Your task to perform on an android device: open wifi settings Image 0: 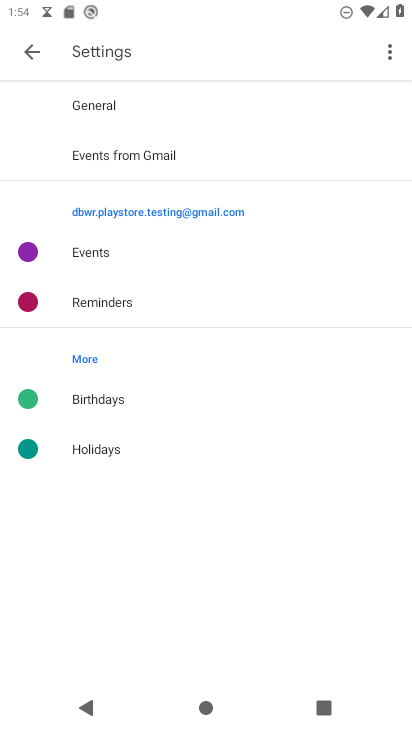
Step 0: press home button
Your task to perform on an android device: open wifi settings Image 1: 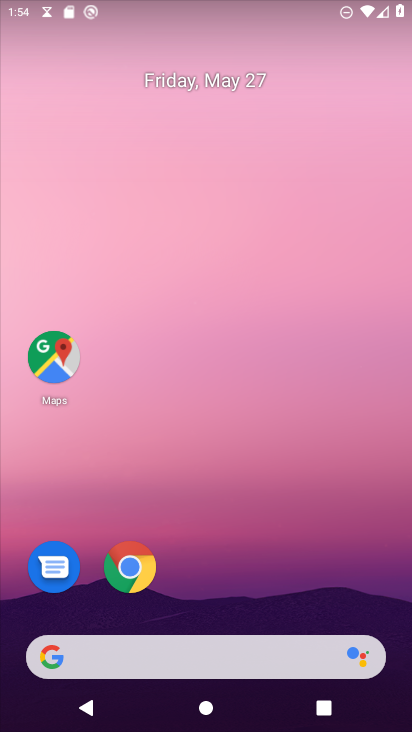
Step 1: drag from (249, 601) to (182, 149)
Your task to perform on an android device: open wifi settings Image 2: 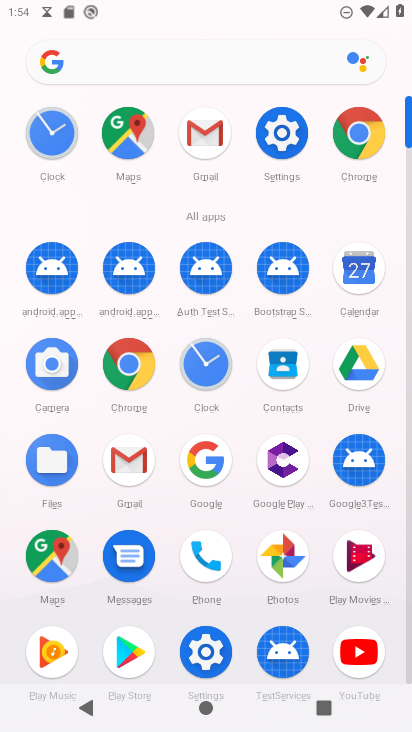
Step 2: click (274, 129)
Your task to perform on an android device: open wifi settings Image 3: 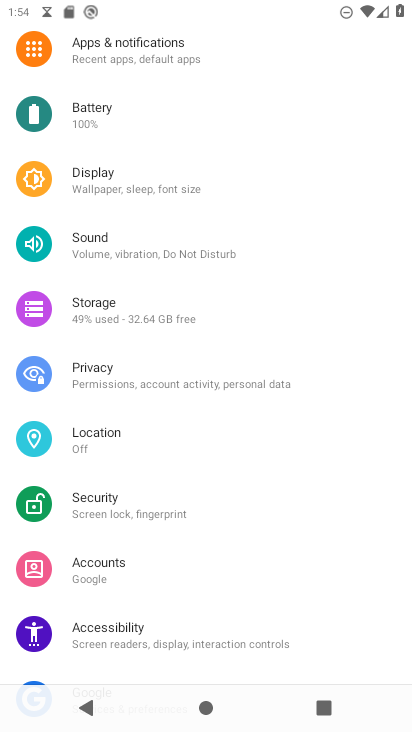
Step 3: drag from (166, 90) to (187, 570)
Your task to perform on an android device: open wifi settings Image 4: 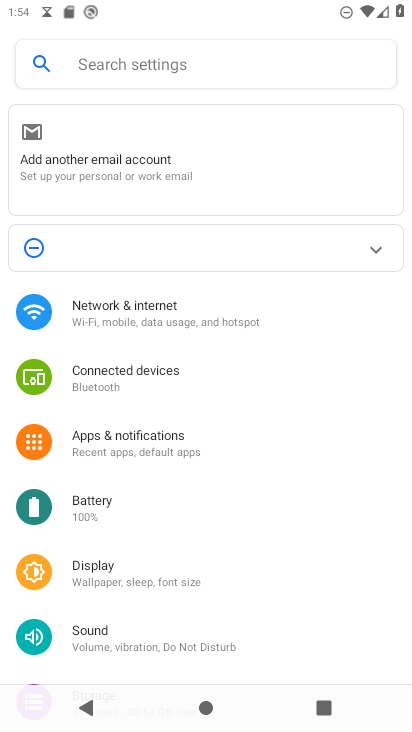
Step 4: click (134, 323)
Your task to perform on an android device: open wifi settings Image 5: 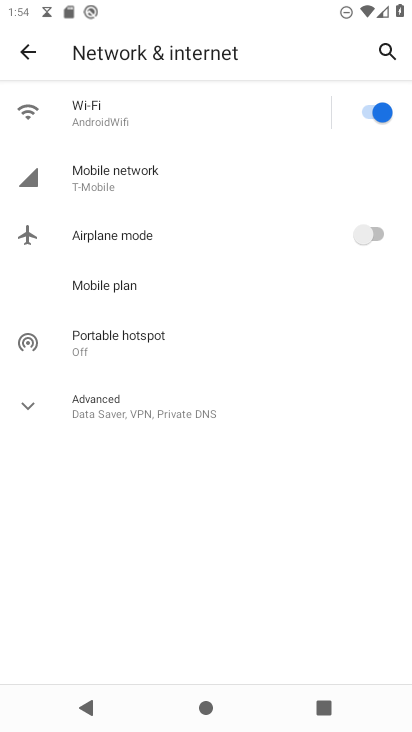
Step 5: click (166, 117)
Your task to perform on an android device: open wifi settings Image 6: 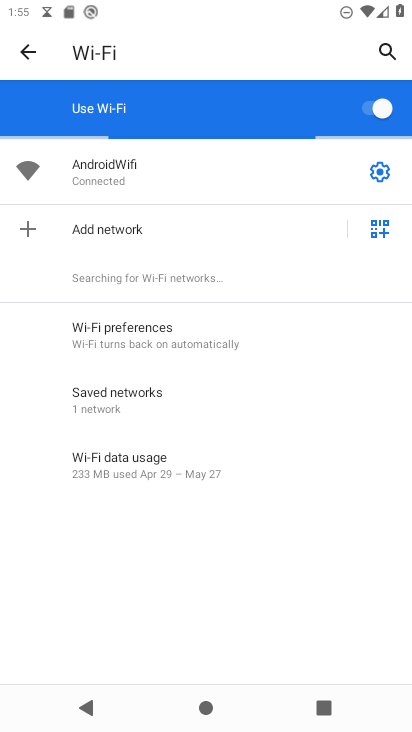
Step 6: task complete